Your task to perform on an android device: find which apps use the phone's location Image 0: 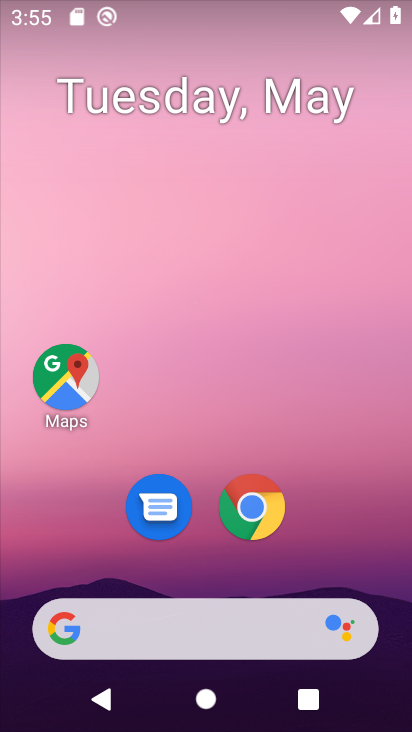
Step 0: drag from (303, 579) to (267, 0)
Your task to perform on an android device: find which apps use the phone's location Image 1: 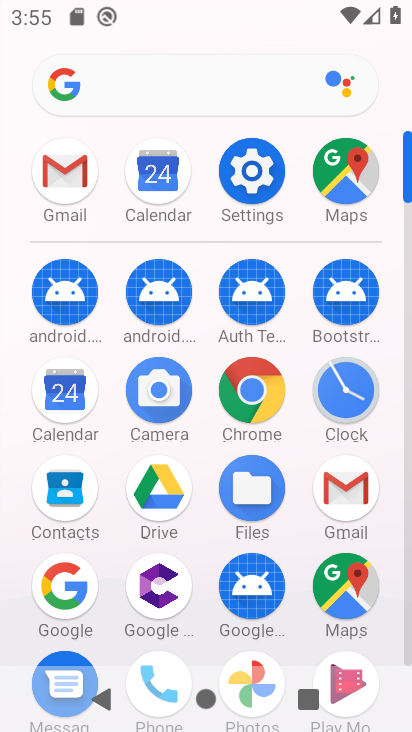
Step 1: click (242, 166)
Your task to perform on an android device: find which apps use the phone's location Image 2: 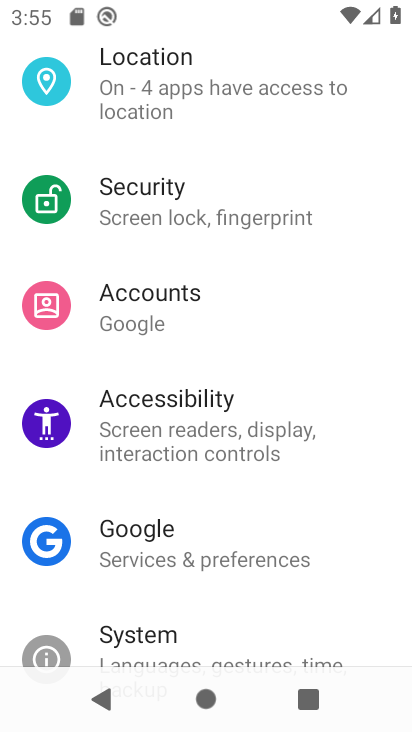
Step 2: click (202, 109)
Your task to perform on an android device: find which apps use the phone's location Image 3: 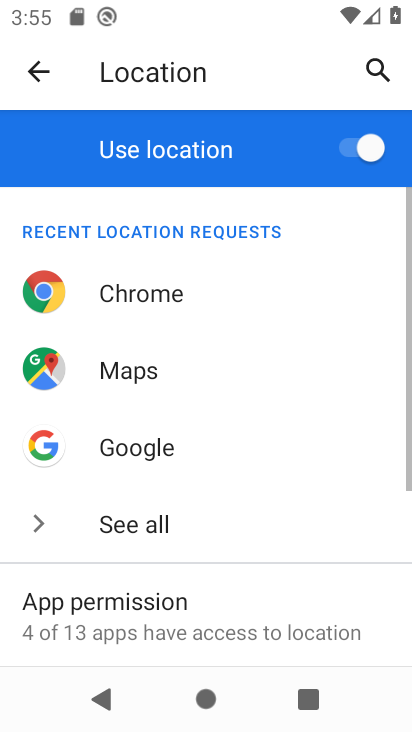
Step 3: click (98, 610)
Your task to perform on an android device: find which apps use the phone's location Image 4: 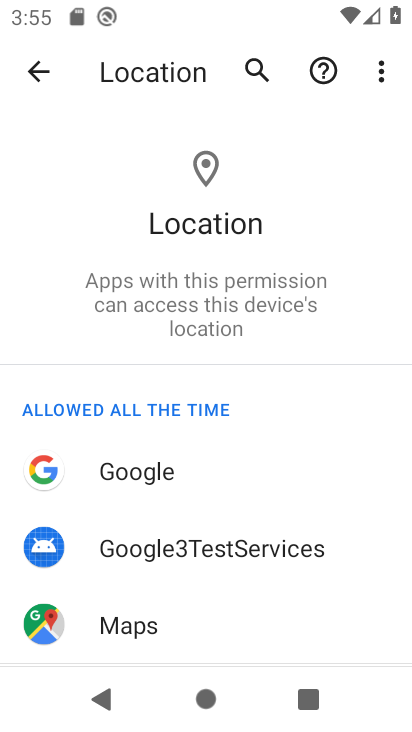
Step 4: task complete